Your task to perform on an android device: Open the web browser Image 0: 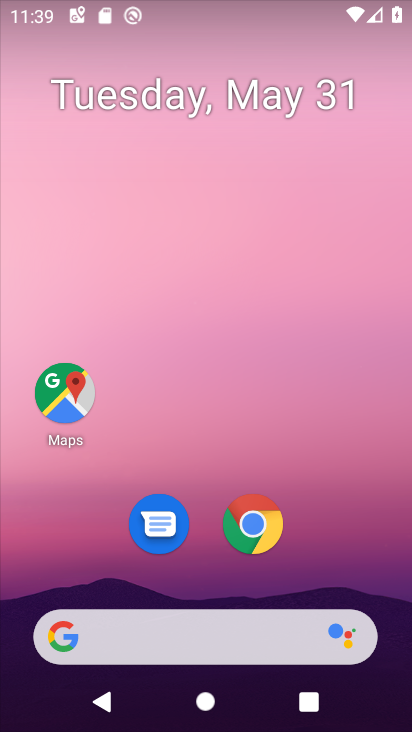
Step 0: click (229, 645)
Your task to perform on an android device: Open the web browser Image 1: 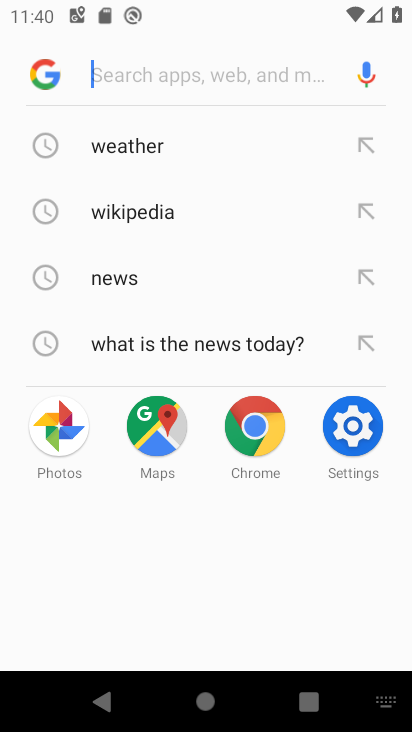
Step 1: task complete